Your task to perform on an android device: change the clock display to show seconds Image 0: 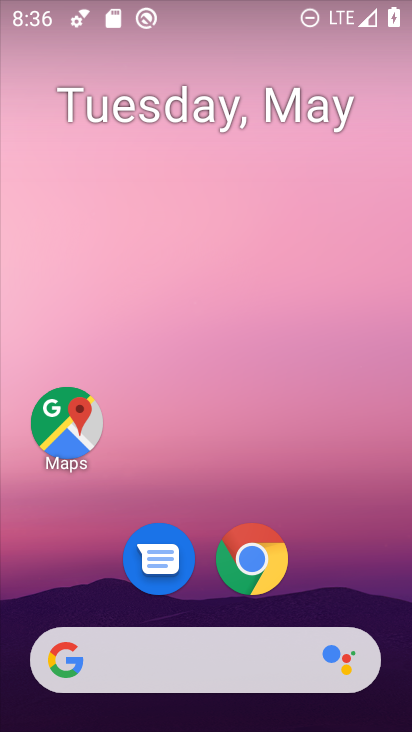
Step 0: drag from (203, 607) to (249, 152)
Your task to perform on an android device: change the clock display to show seconds Image 1: 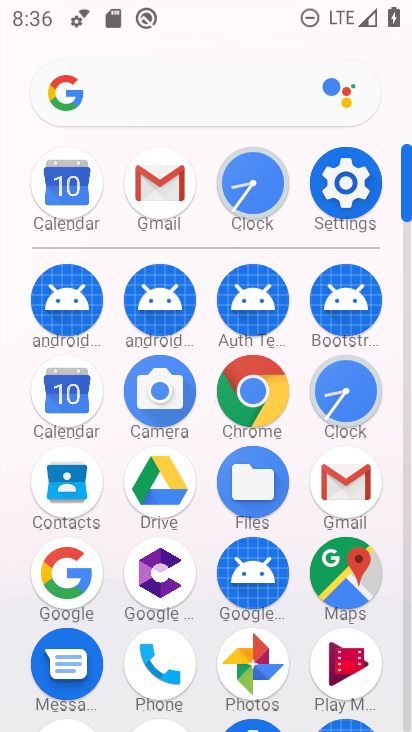
Step 1: click (346, 402)
Your task to perform on an android device: change the clock display to show seconds Image 2: 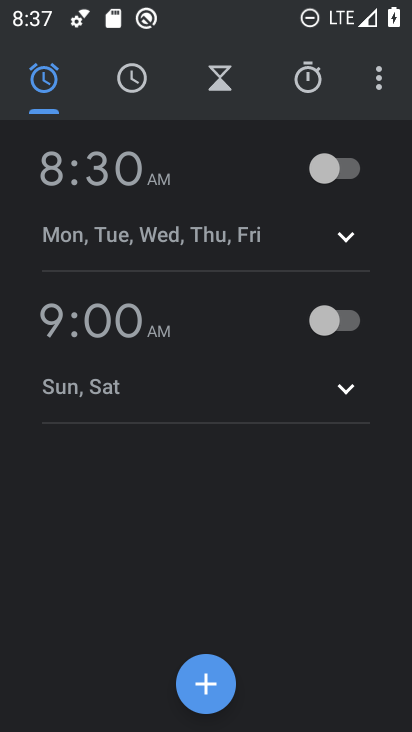
Step 2: click (384, 73)
Your task to perform on an android device: change the clock display to show seconds Image 3: 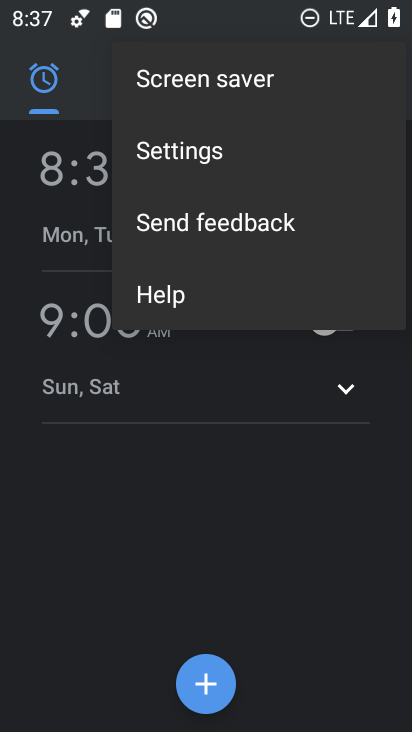
Step 3: click (193, 139)
Your task to perform on an android device: change the clock display to show seconds Image 4: 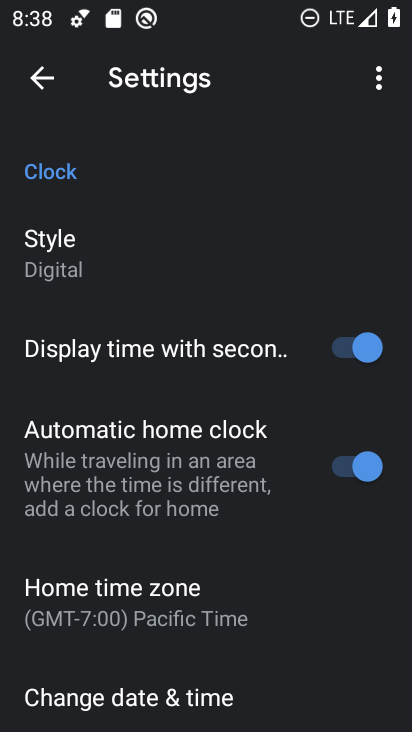
Step 4: task complete